Your task to perform on an android device: Nike Air Max 2020 shoes on Nike.com Image 0: 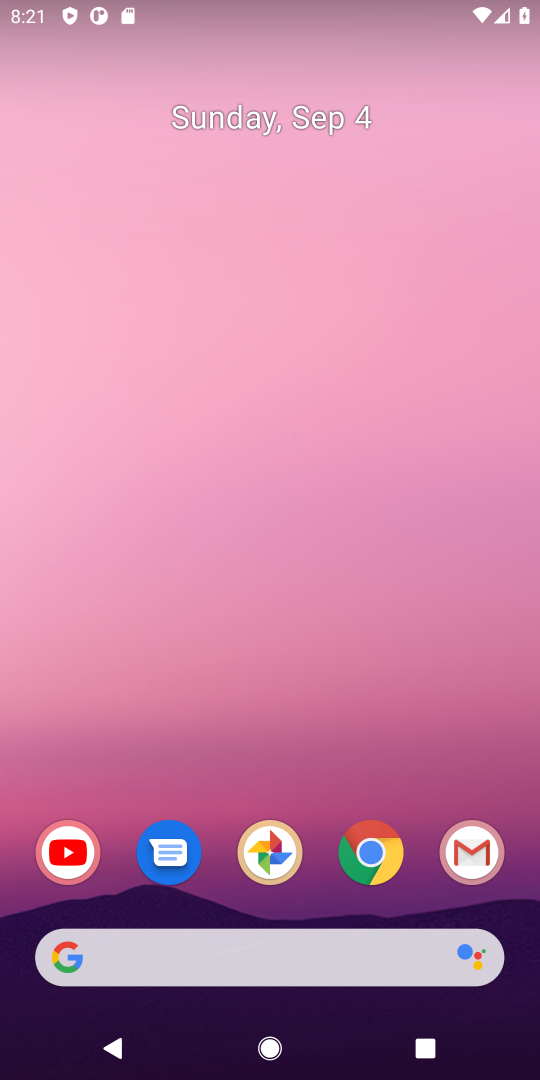
Step 0: drag from (427, 801) to (285, 351)
Your task to perform on an android device: Nike Air Max 2020 shoes on Nike.com Image 1: 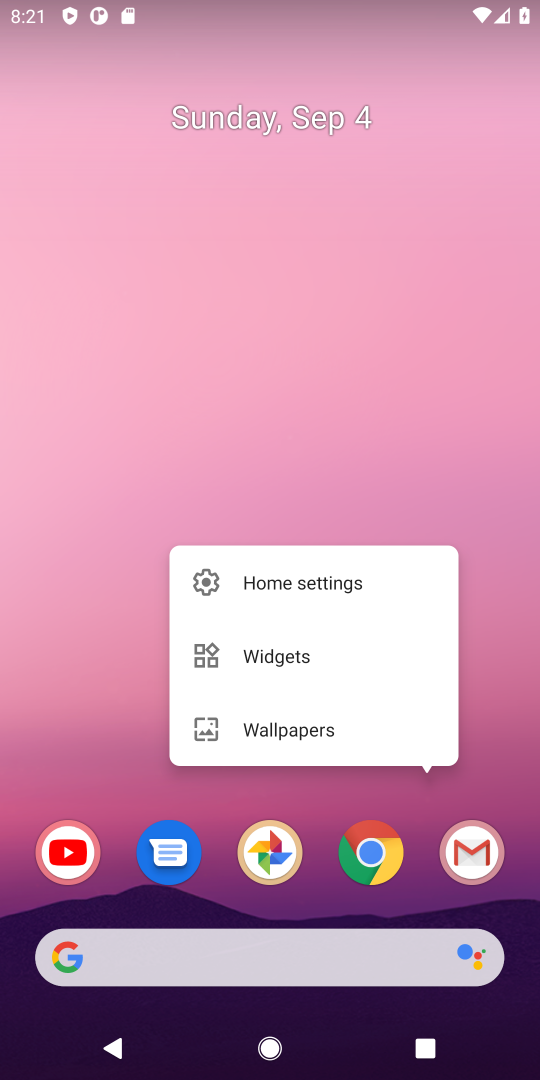
Step 1: click (264, 364)
Your task to perform on an android device: Nike Air Max 2020 shoes on Nike.com Image 2: 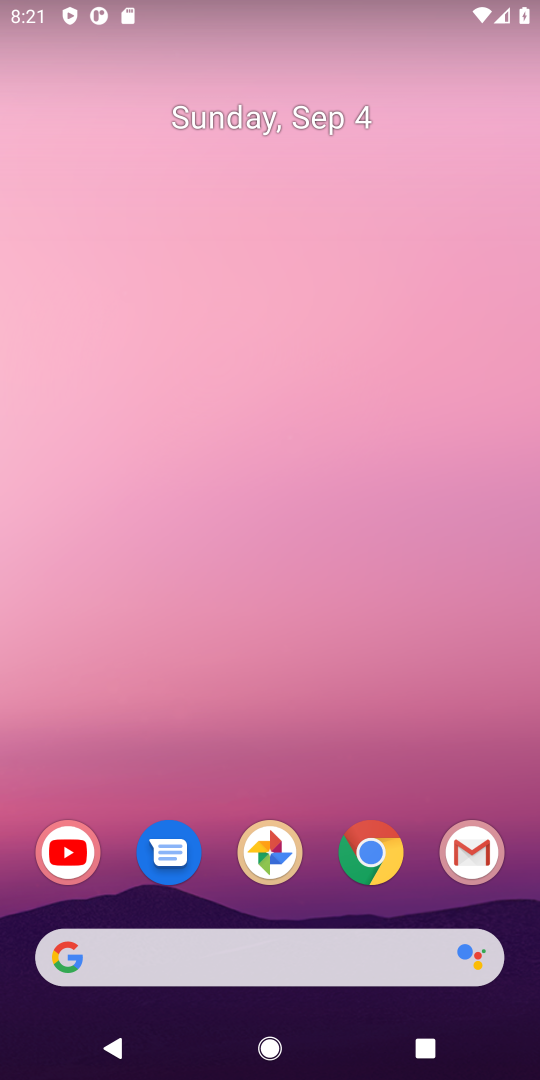
Step 2: drag from (413, 731) to (240, 53)
Your task to perform on an android device: Nike Air Max 2020 shoes on Nike.com Image 3: 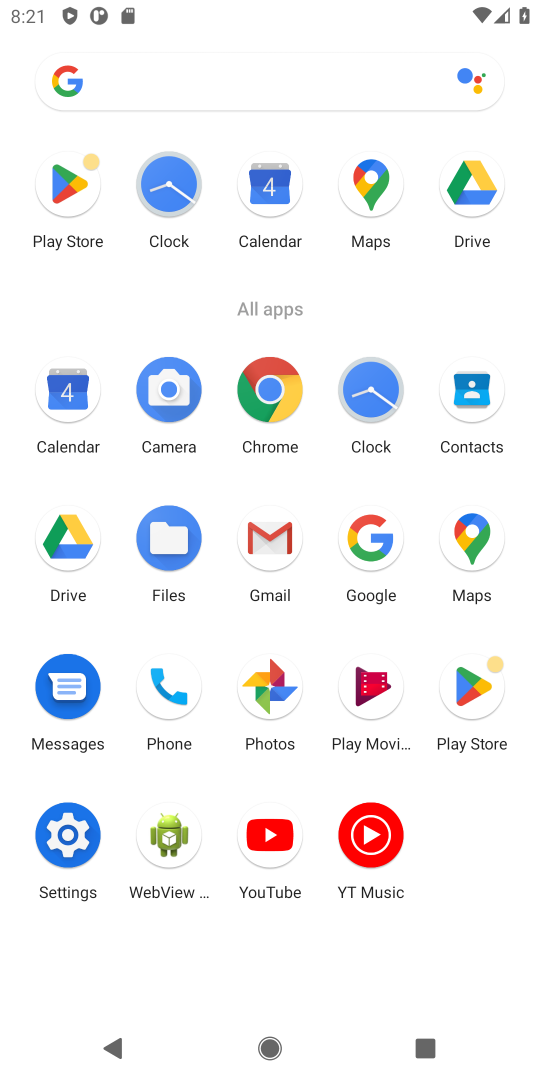
Step 3: click (377, 552)
Your task to perform on an android device: Nike Air Max 2020 shoes on Nike.com Image 4: 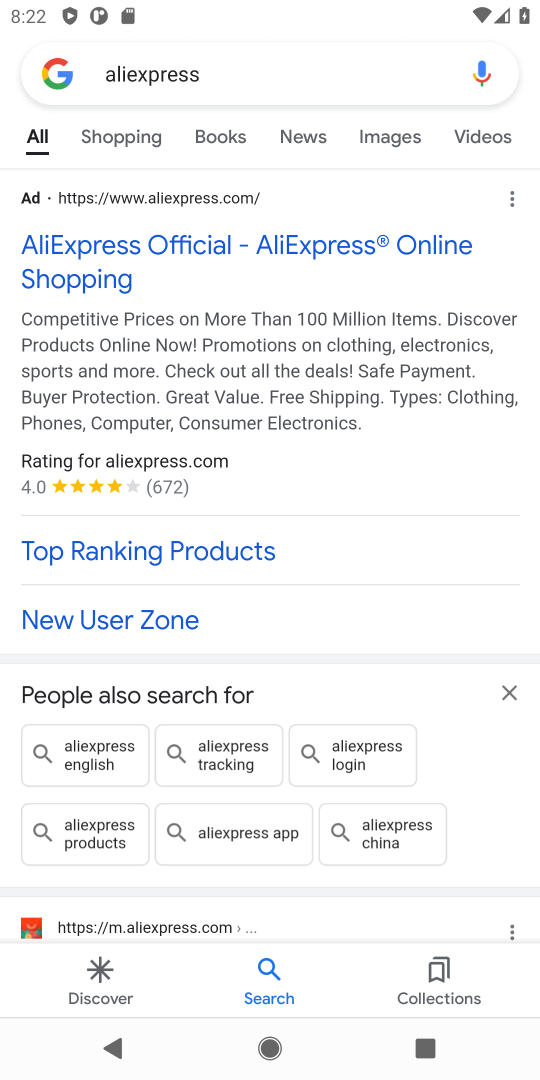
Step 4: press back button
Your task to perform on an android device: Nike Air Max 2020 shoes on Nike.com Image 5: 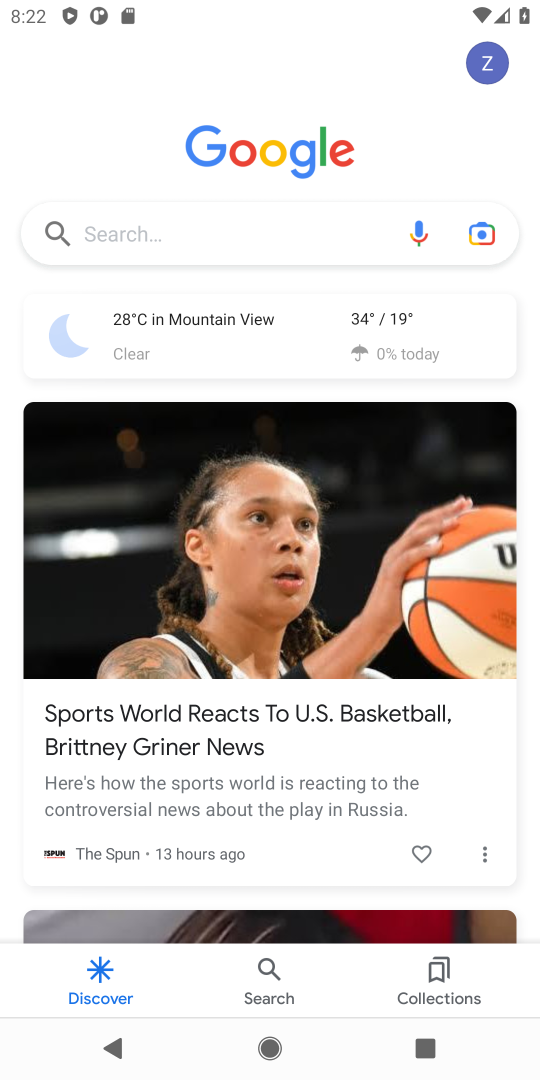
Step 5: click (167, 234)
Your task to perform on an android device: Nike Air Max 2020 shoes on Nike.com Image 6: 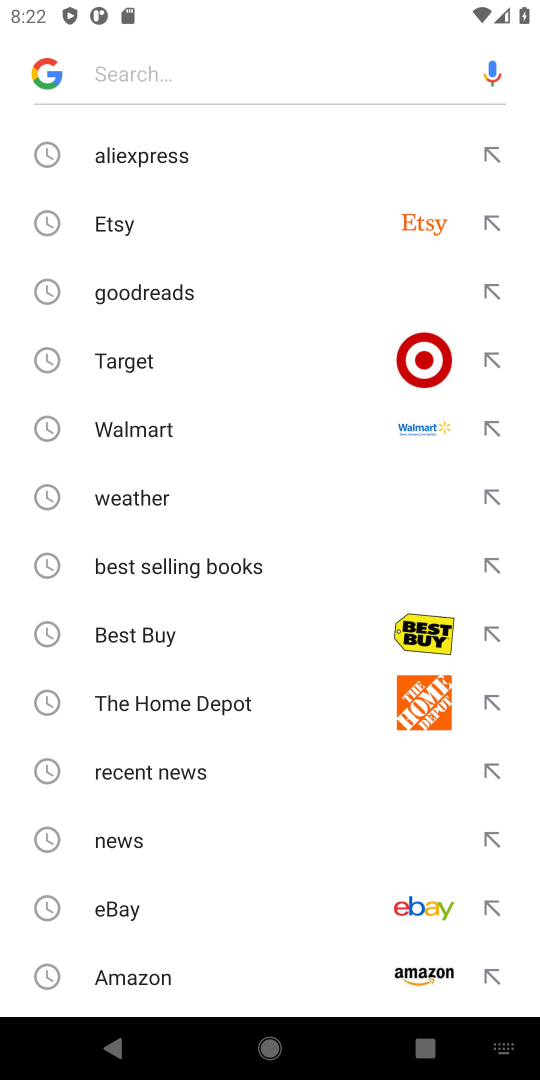
Step 6: type "Nike.com"
Your task to perform on an android device: Nike Air Max 2020 shoes on Nike.com Image 7: 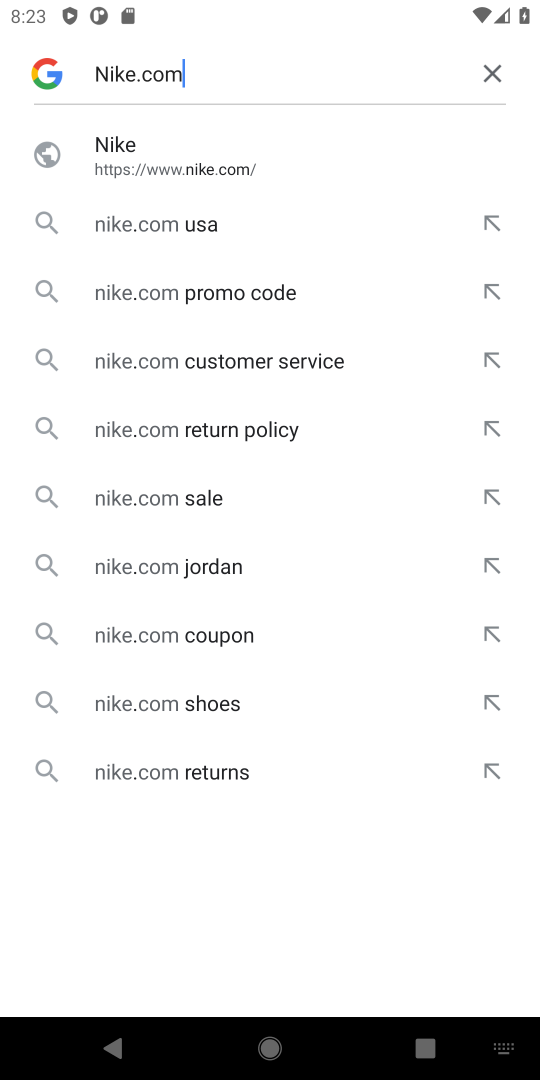
Step 7: click (142, 177)
Your task to perform on an android device: Nike Air Max 2020 shoes on Nike.com Image 8: 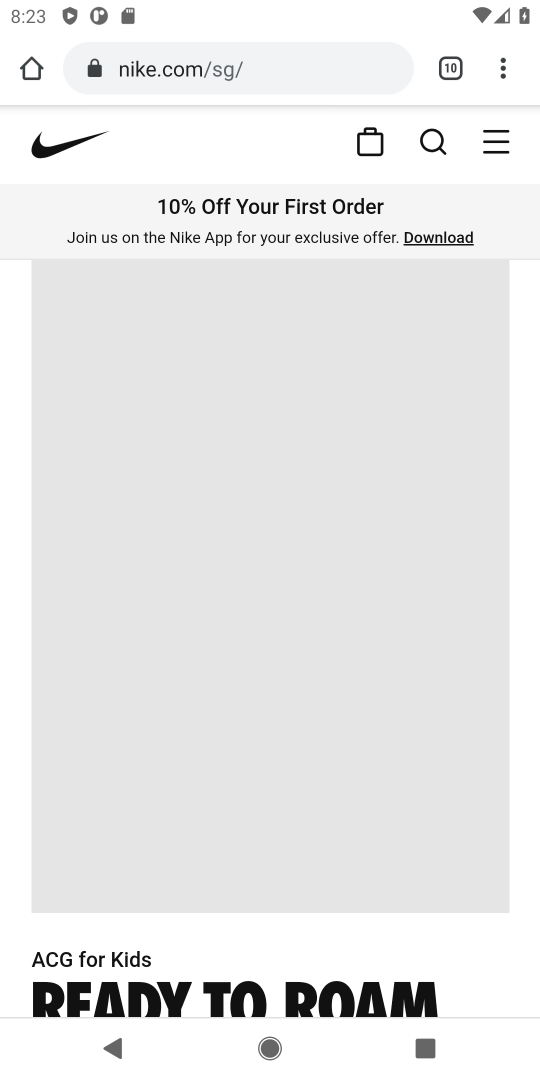
Step 8: click (441, 140)
Your task to perform on an android device: Nike Air Max 2020 shoes on Nike.com Image 9: 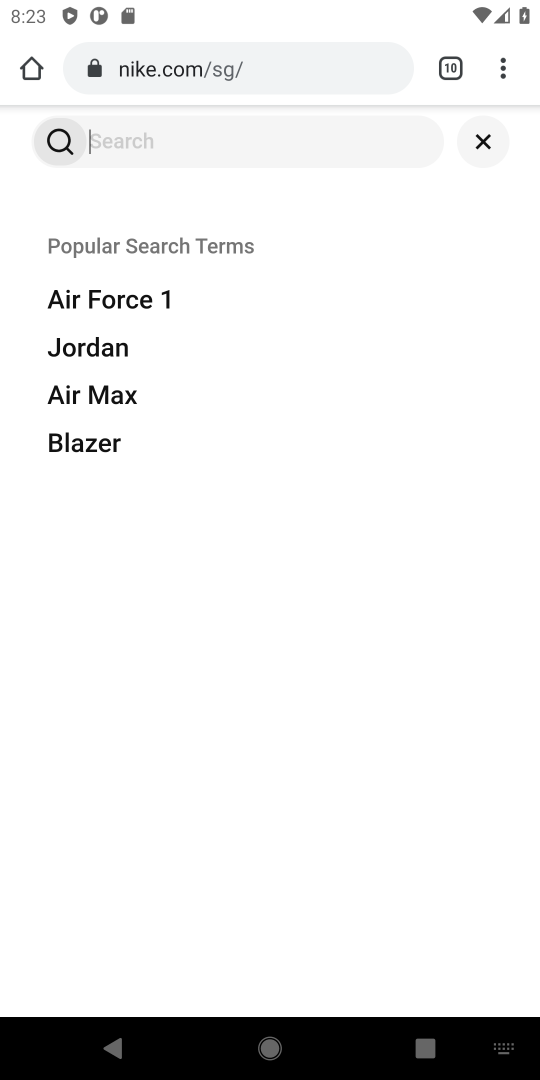
Step 9: click (141, 145)
Your task to perform on an android device: Nike Air Max 2020 shoes on Nike.com Image 10: 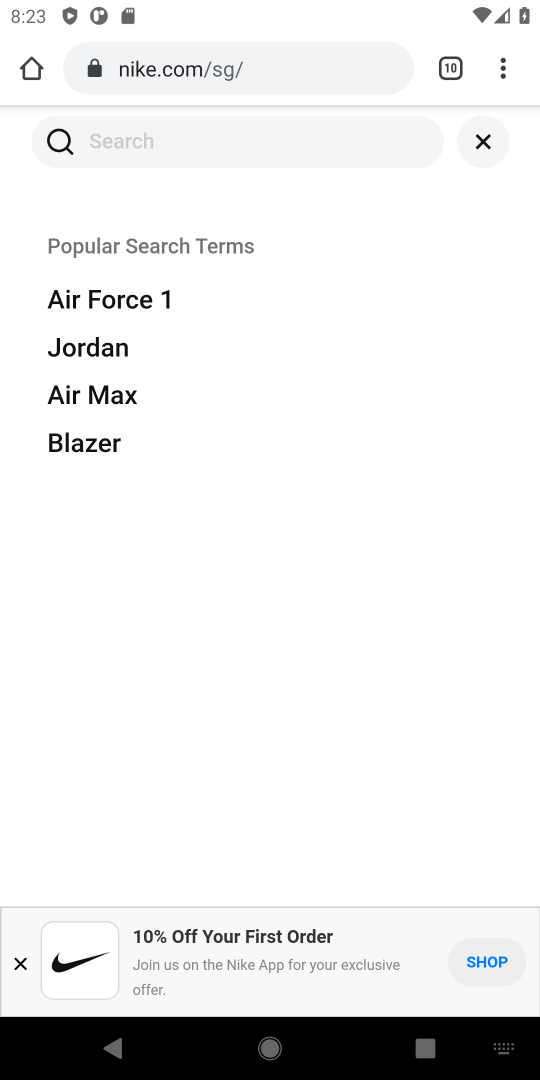
Step 10: click (101, 393)
Your task to perform on an android device: Nike Air Max 2020 shoes on Nike.com Image 11: 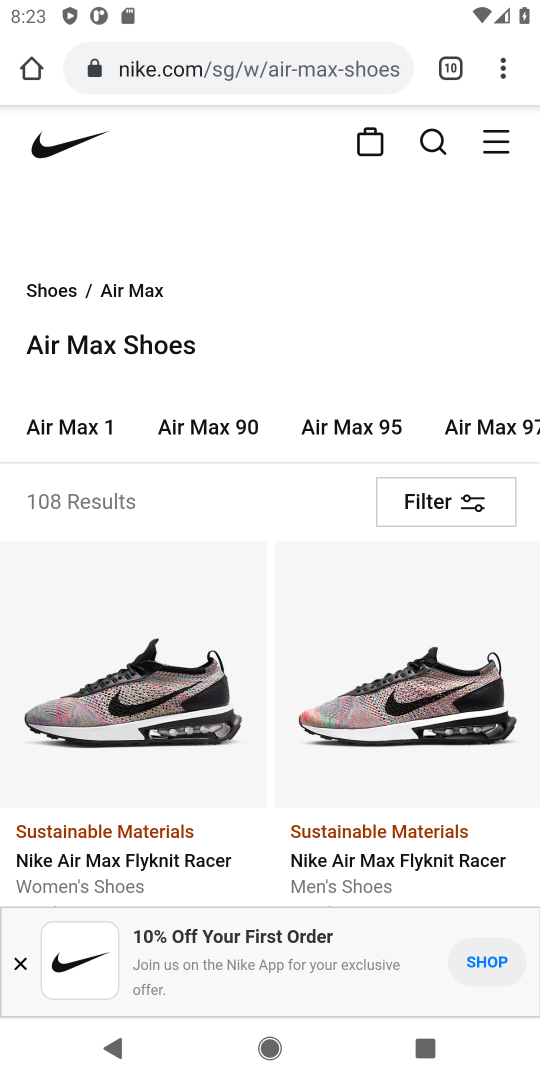
Step 11: task complete